Your task to perform on an android device: Go to wifi settings Image 0: 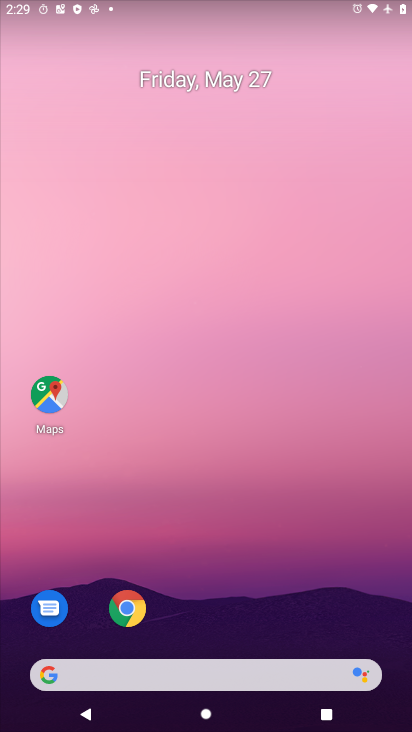
Step 0: drag from (131, 672) to (349, 184)
Your task to perform on an android device: Go to wifi settings Image 1: 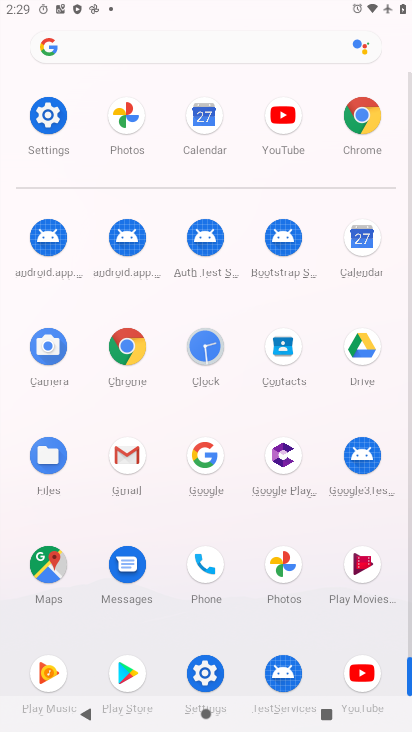
Step 1: click (57, 124)
Your task to perform on an android device: Go to wifi settings Image 2: 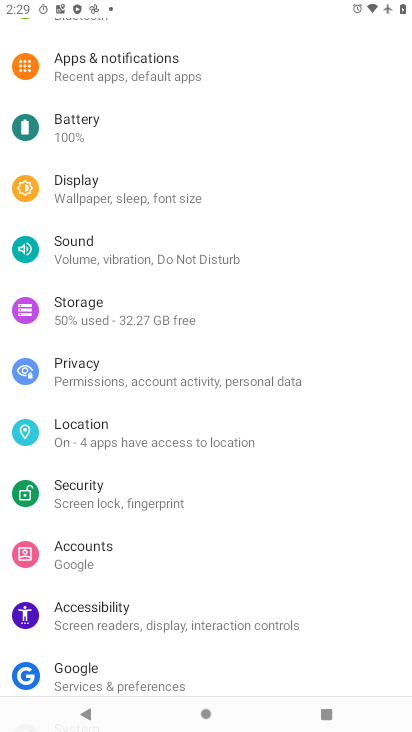
Step 2: drag from (240, 116) to (188, 587)
Your task to perform on an android device: Go to wifi settings Image 3: 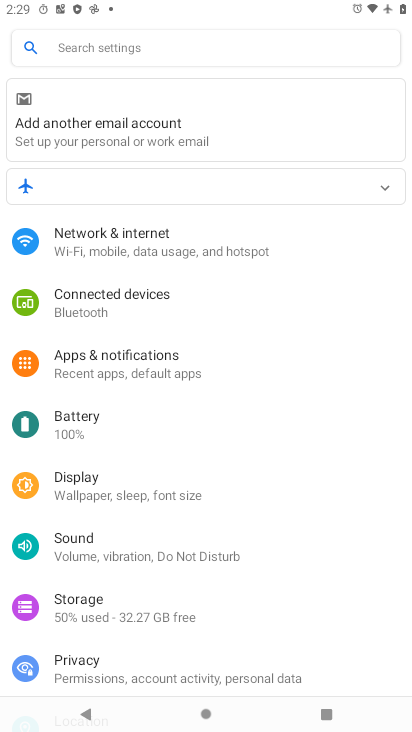
Step 3: click (134, 237)
Your task to perform on an android device: Go to wifi settings Image 4: 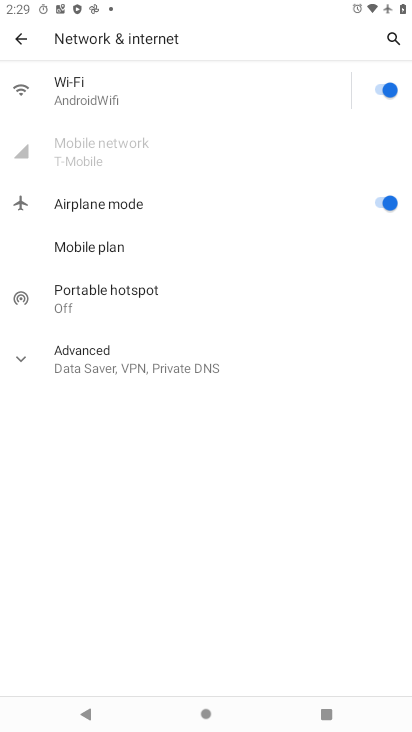
Step 4: click (89, 102)
Your task to perform on an android device: Go to wifi settings Image 5: 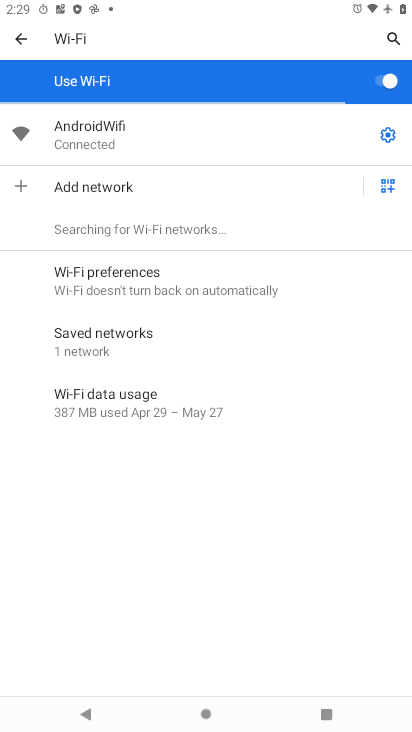
Step 5: task complete